Your task to perform on an android device: Search for "acer predator" on target, select the first entry, add it to the cart, then select checkout. Image 0: 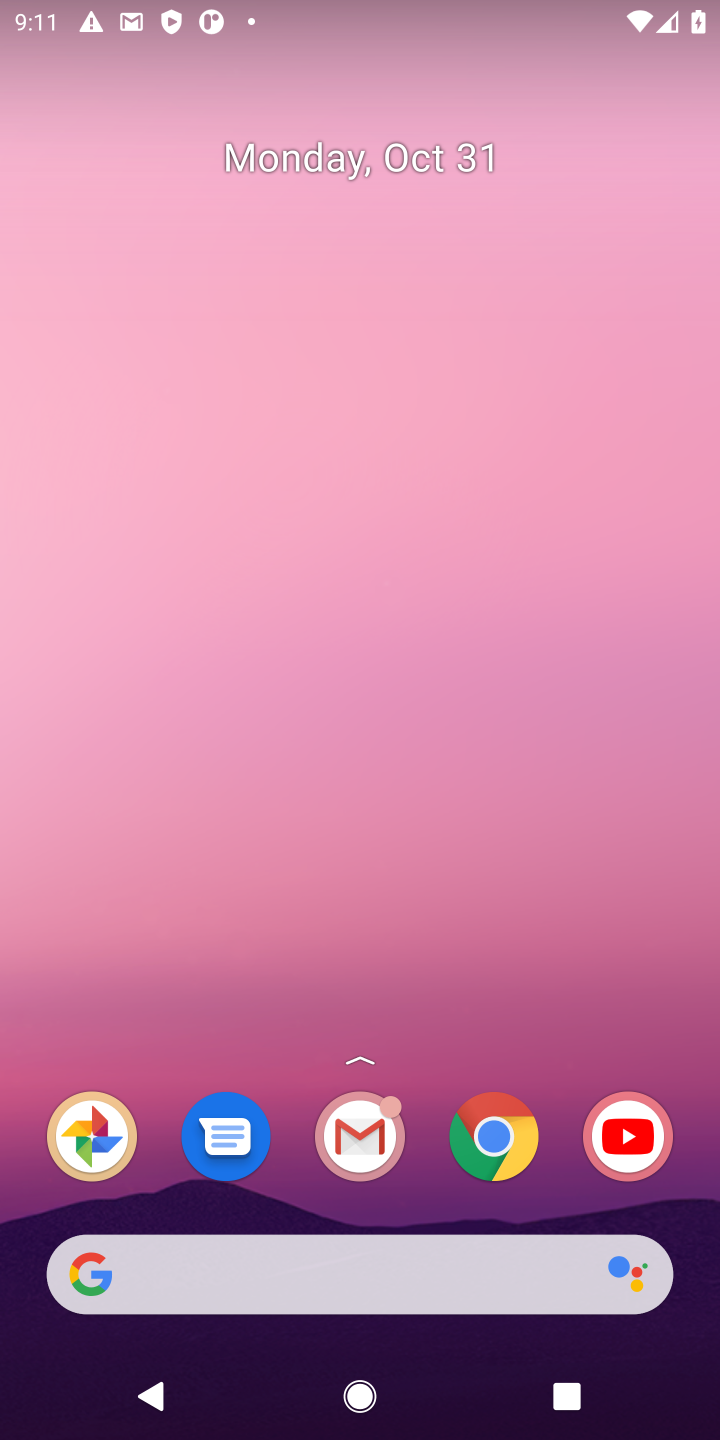
Step 0: task complete